Your task to perform on an android device: check battery use Image 0: 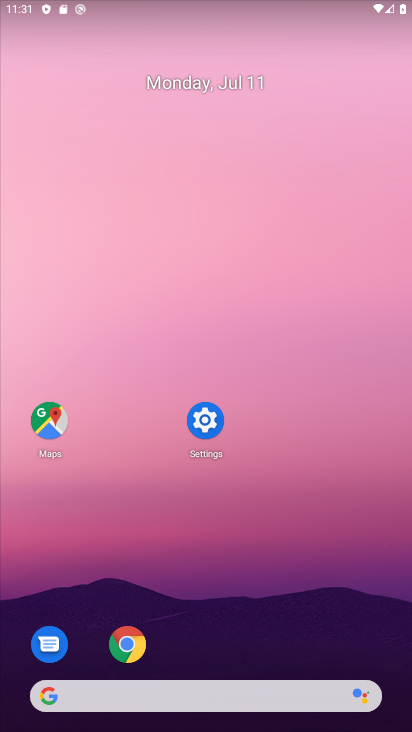
Step 0: drag from (396, 664) to (373, 148)
Your task to perform on an android device: check battery use Image 1: 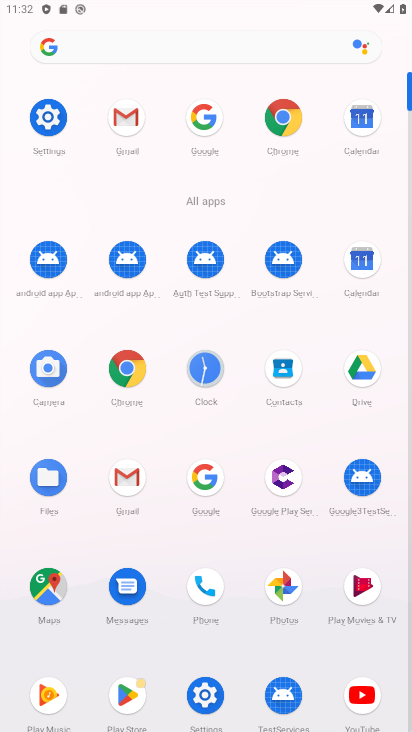
Step 1: click (37, 122)
Your task to perform on an android device: check battery use Image 2: 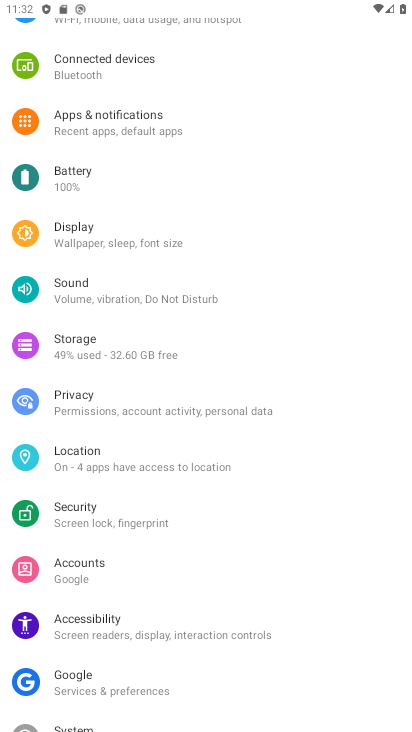
Step 2: click (82, 176)
Your task to perform on an android device: check battery use Image 3: 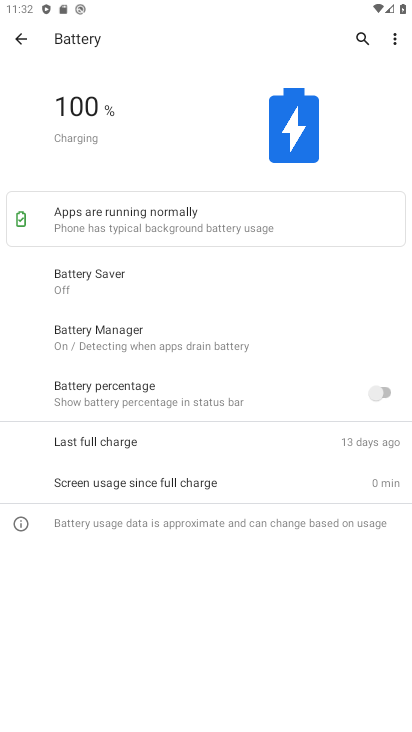
Step 3: click (394, 43)
Your task to perform on an android device: check battery use Image 4: 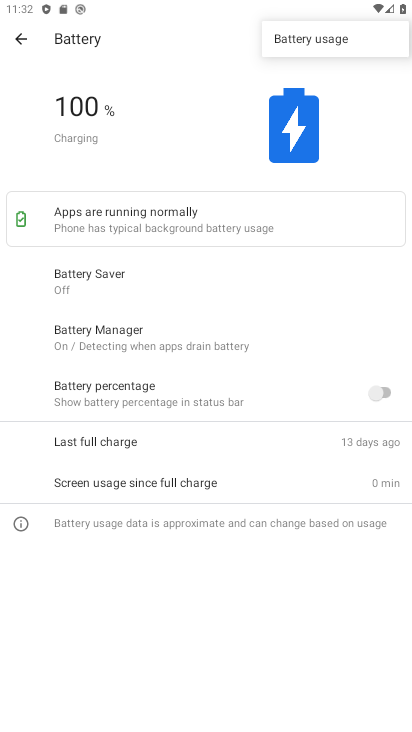
Step 4: click (350, 29)
Your task to perform on an android device: check battery use Image 5: 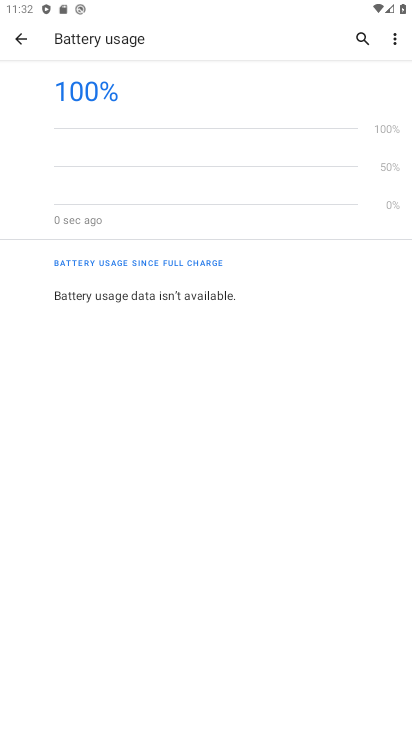
Step 5: task complete